Your task to perform on an android device: What's the weather today? Image 0: 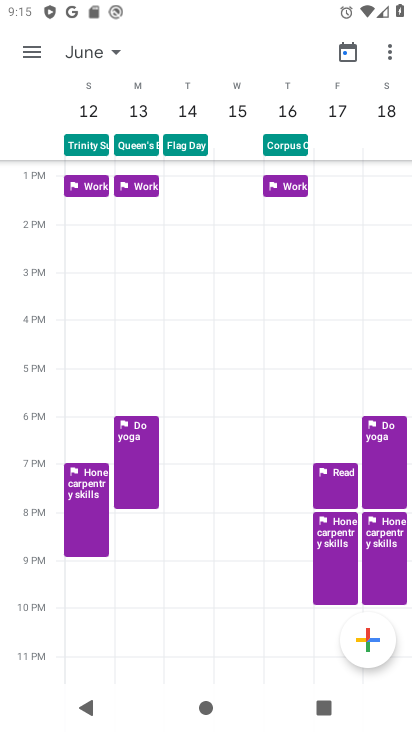
Step 0: press home button
Your task to perform on an android device: What's the weather today? Image 1: 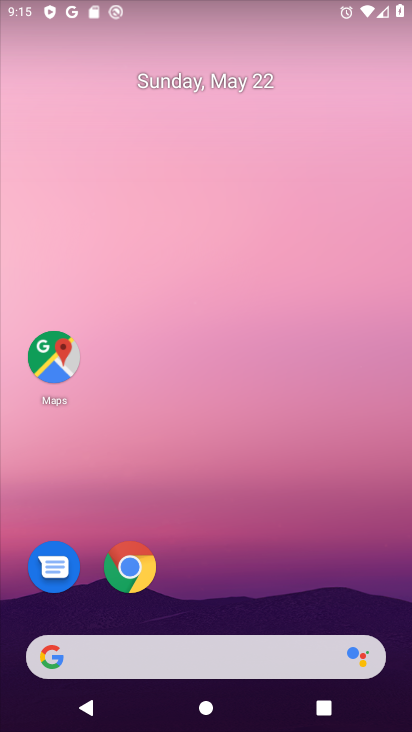
Step 1: click (178, 674)
Your task to perform on an android device: What's the weather today? Image 2: 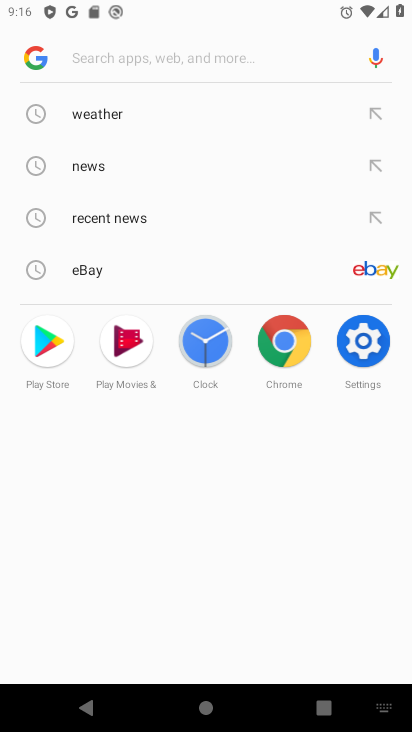
Step 2: click (110, 96)
Your task to perform on an android device: What's the weather today? Image 3: 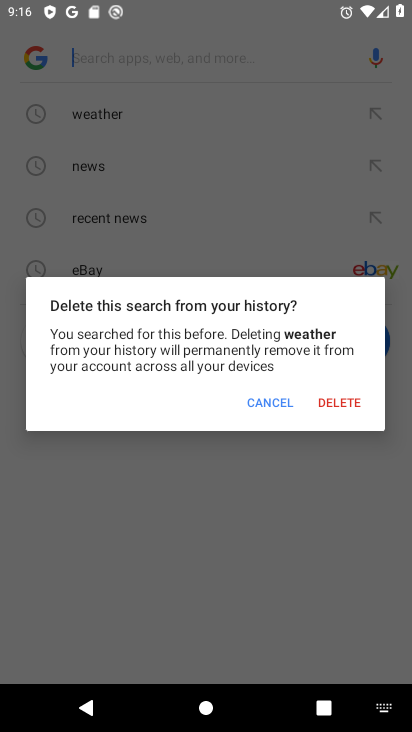
Step 3: click (252, 404)
Your task to perform on an android device: What's the weather today? Image 4: 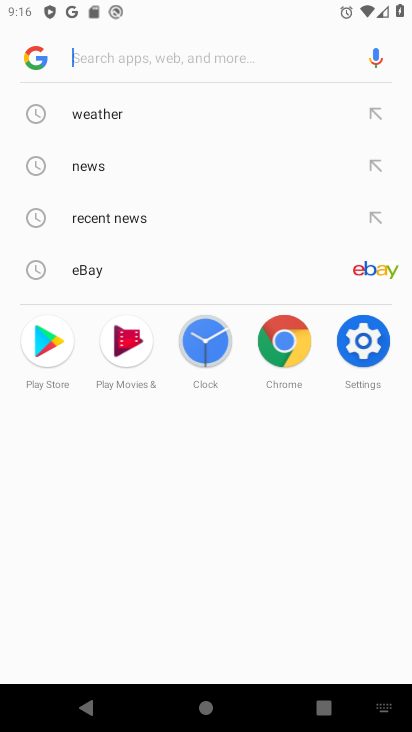
Step 4: click (94, 107)
Your task to perform on an android device: What's the weather today? Image 5: 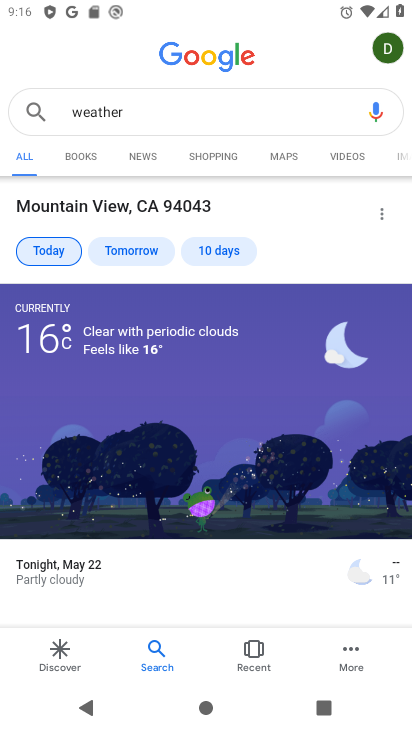
Step 5: task complete